Your task to perform on an android device: turn on airplane mode Image 0: 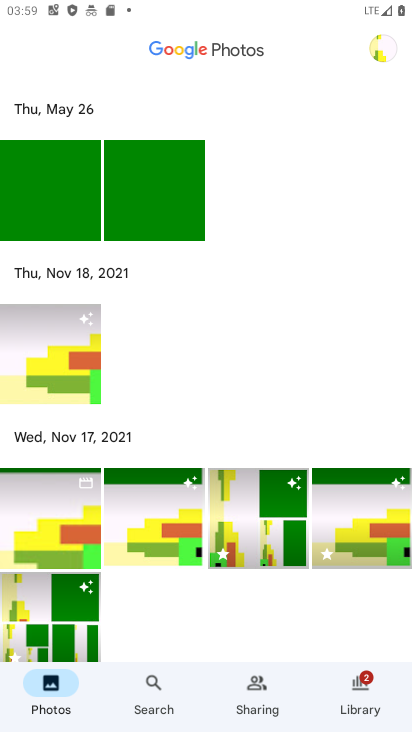
Step 0: press home button
Your task to perform on an android device: turn on airplane mode Image 1: 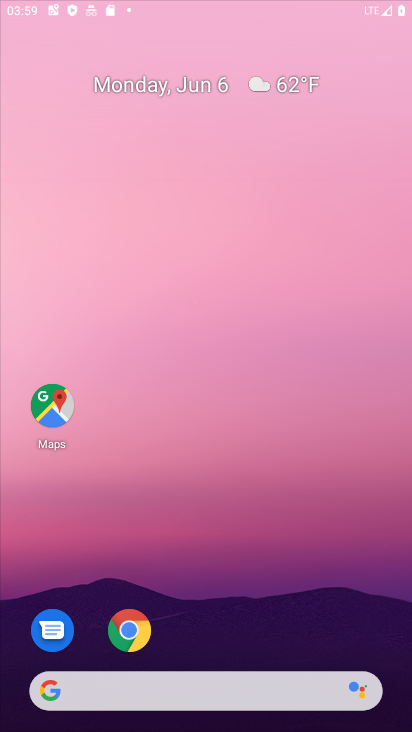
Step 1: drag from (327, 8) to (237, 727)
Your task to perform on an android device: turn on airplane mode Image 2: 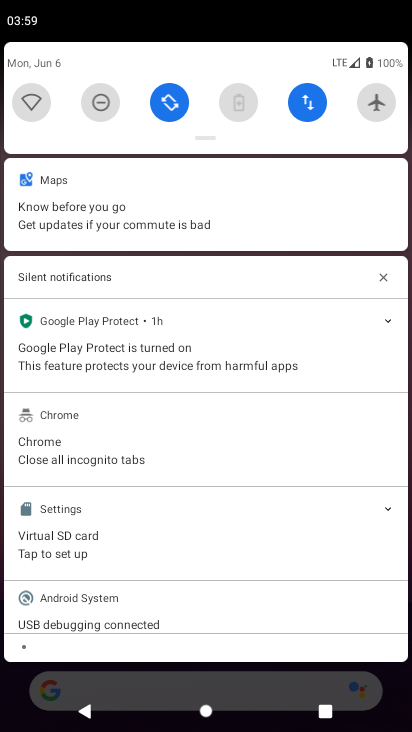
Step 2: click (378, 122)
Your task to perform on an android device: turn on airplane mode Image 3: 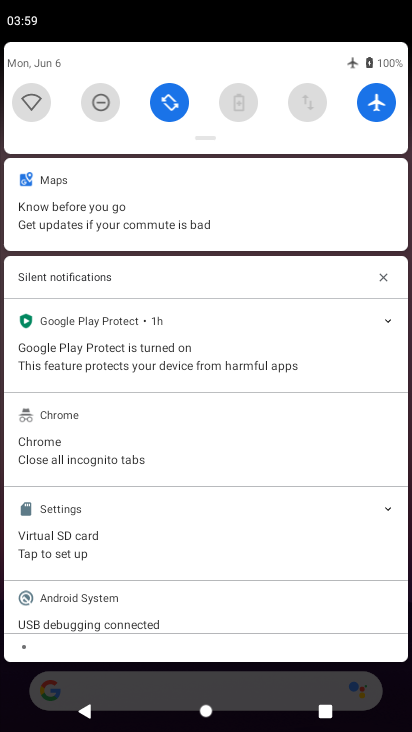
Step 3: task complete